Your task to perform on an android device: Open the Play Movies app and select the watchlist tab. Image 0: 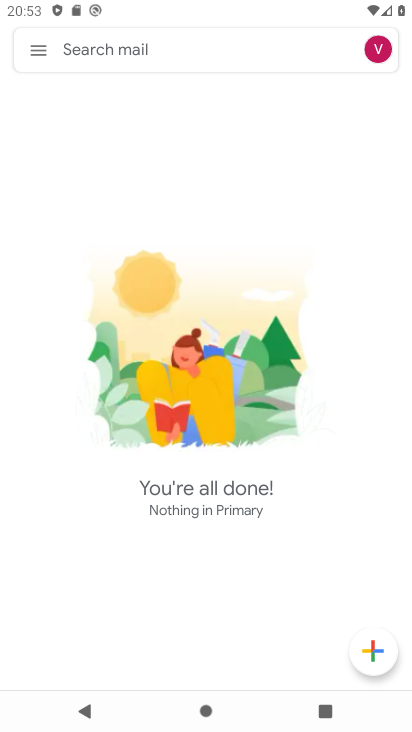
Step 0: press home button
Your task to perform on an android device: Open the Play Movies app and select the watchlist tab. Image 1: 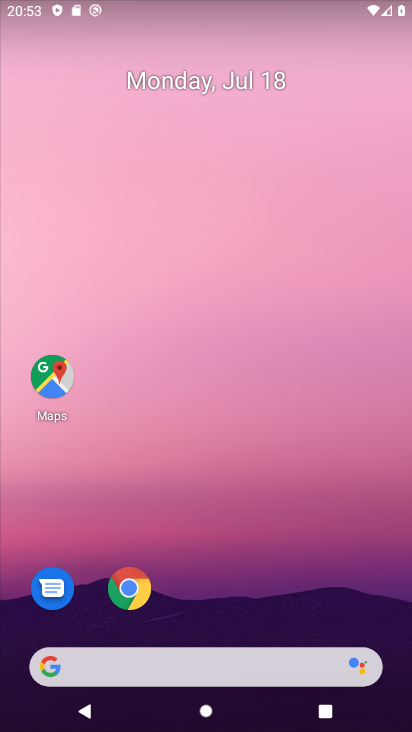
Step 1: drag from (215, 661) to (375, 121)
Your task to perform on an android device: Open the Play Movies app and select the watchlist tab. Image 2: 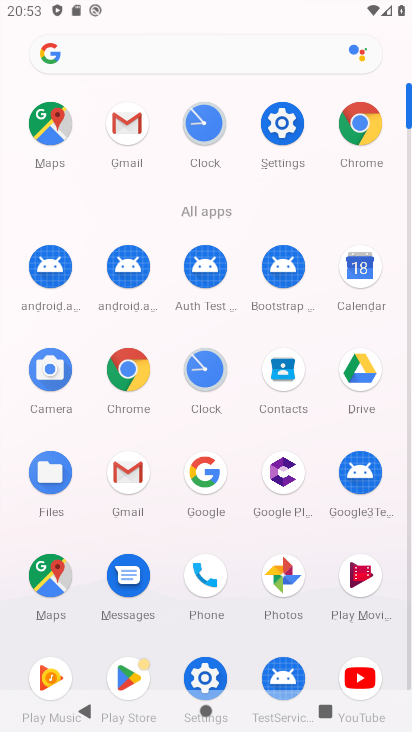
Step 2: click (357, 581)
Your task to perform on an android device: Open the Play Movies app and select the watchlist tab. Image 3: 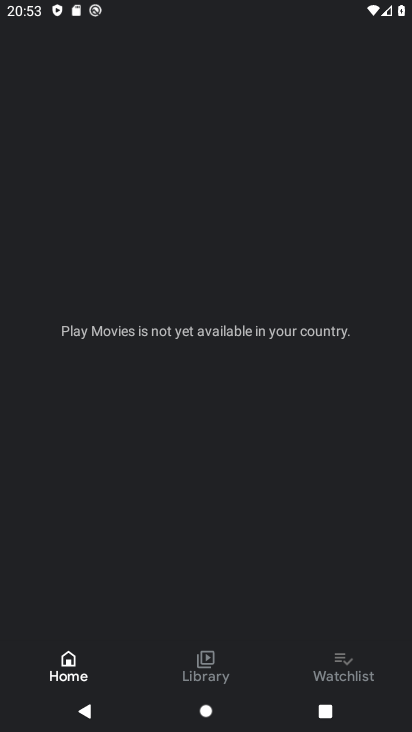
Step 3: click (340, 683)
Your task to perform on an android device: Open the Play Movies app and select the watchlist tab. Image 4: 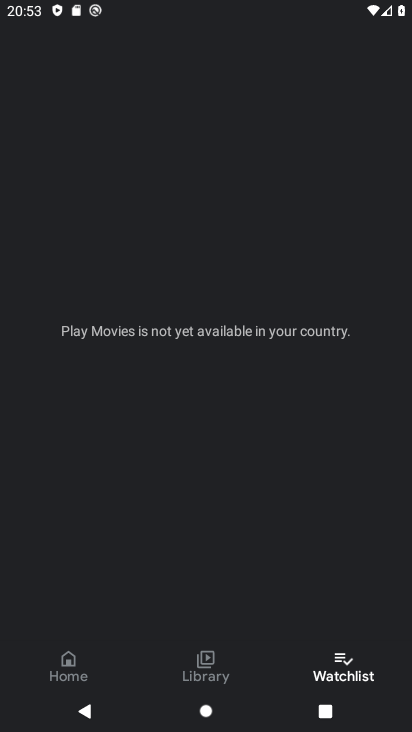
Step 4: task complete